Your task to perform on an android device: remove spam from my inbox in the gmail app Image 0: 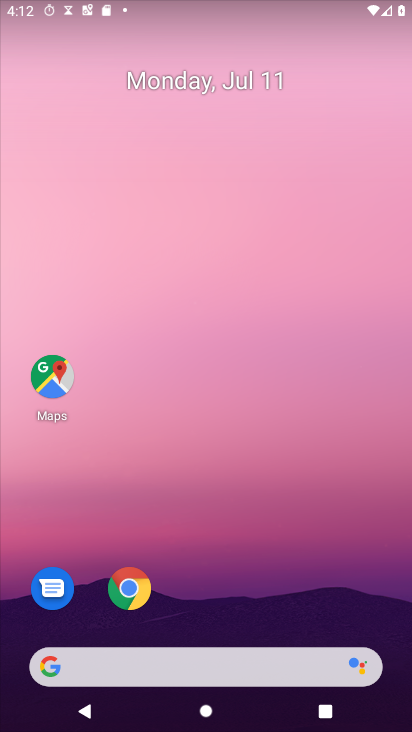
Step 0: drag from (275, 562) to (241, 89)
Your task to perform on an android device: remove spam from my inbox in the gmail app Image 1: 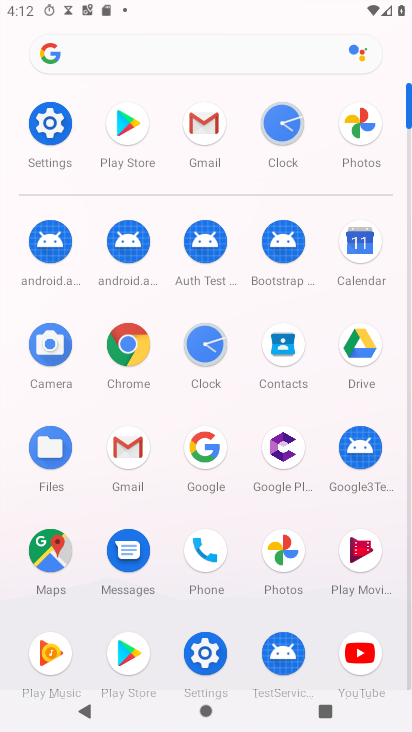
Step 1: click (214, 111)
Your task to perform on an android device: remove spam from my inbox in the gmail app Image 2: 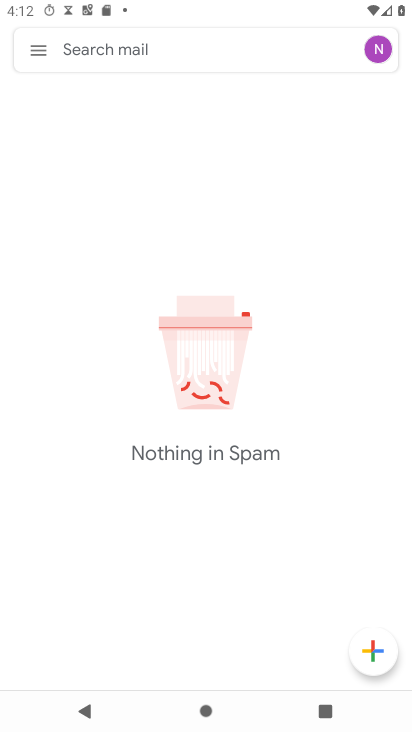
Step 2: click (40, 51)
Your task to perform on an android device: remove spam from my inbox in the gmail app Image 3: 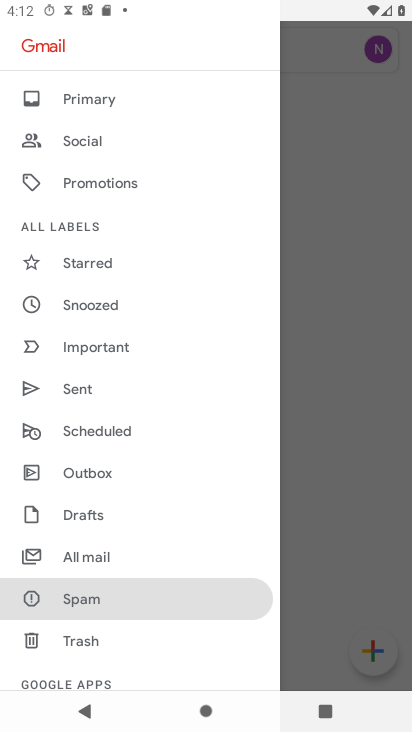
Step 3: click (182, 587)
Your task to perform on an android device: remove spam from my inbox in the gmail app Image 4: 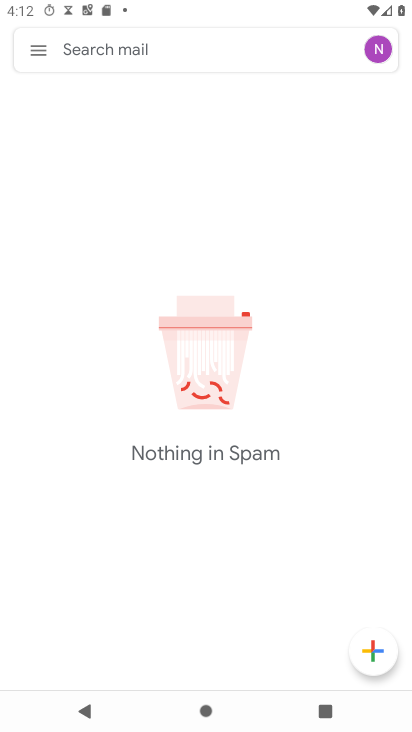
Step 4: task complete